Your task to perform on an android device: Go to CNN.com Image 0: 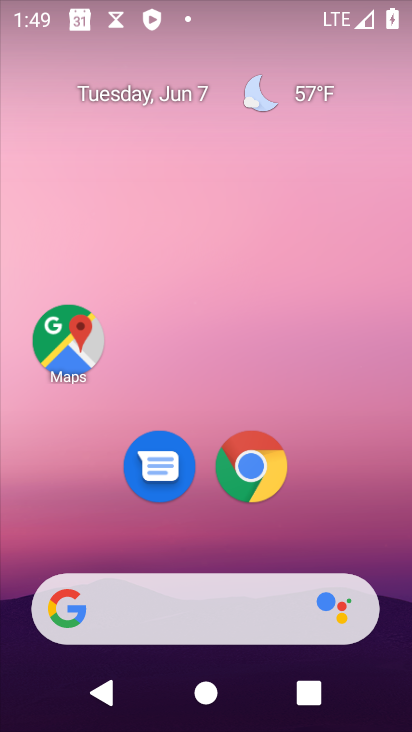
Step 0: click (257, 460)
Your task to perform on an android device: Go to CNN.com Image 1: 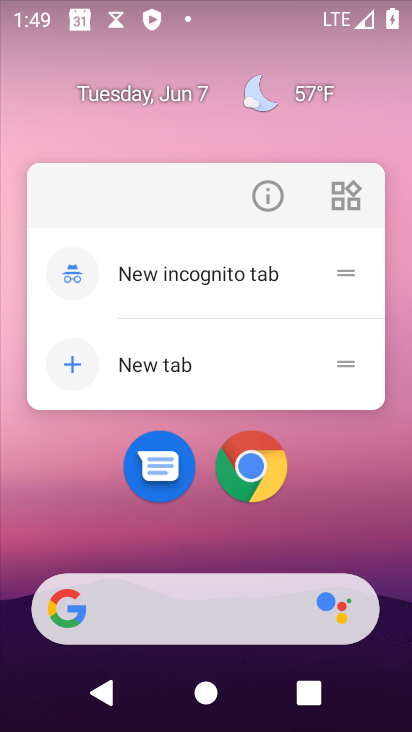
Step 1: click (257, 466)
Your task to perform on an android device: Go to CNN.com Image 2: 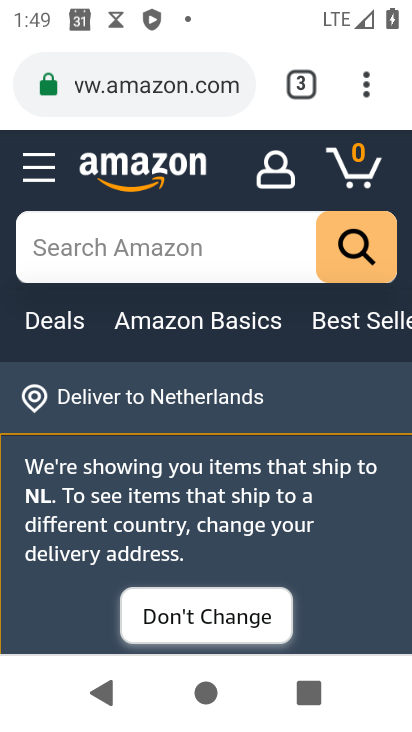
Step 2: click (302, 77)
Your task to perform on an android device: Go to CNN.com Image 3: 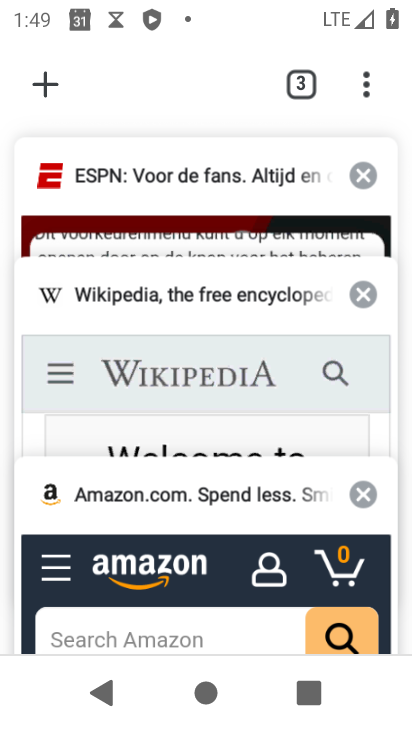
Step 3: click (54, 78)
Your task to perform on an android device: Go to CNN.com Image 4: 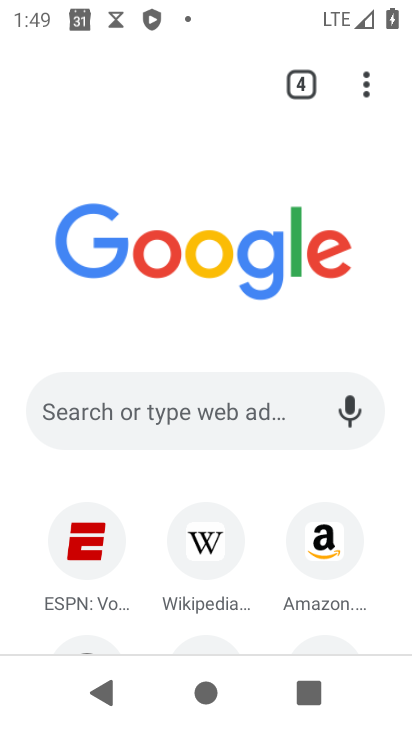
Step 4: drag from (175, 552) to (243, 110)
Your task to perform on an android device: Go to CNN.com Image 5: 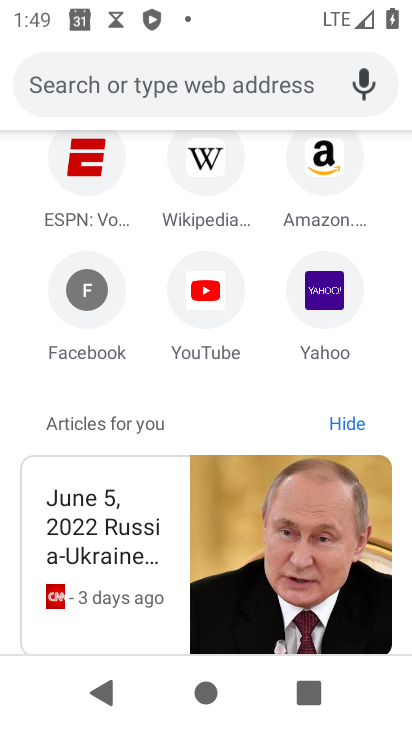
Step 5: click (133, 86)
Your task to perform on an android device: Go to CNN.com Image 6: 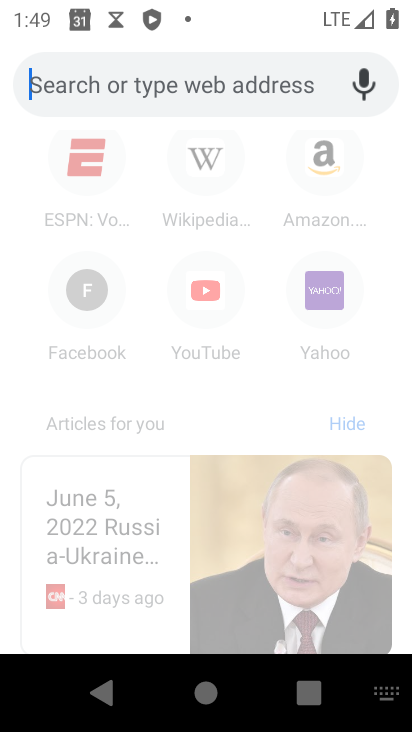
Step 6: type "cnn.com"
Your task to perform on an android device: Go to CNN.com Image 7: 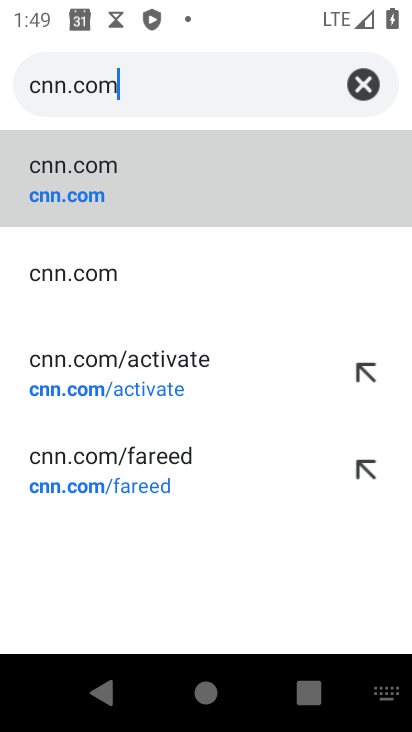
Step 7: click (142, 171)
Your task to perform on an android device: Go to CNN.com Image 8: 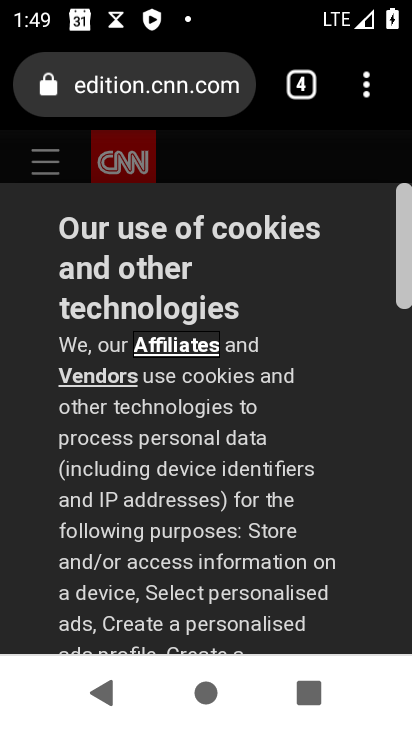
Step 8: task complete